Your task to perform on an android device: change keyboard looks Image 0: 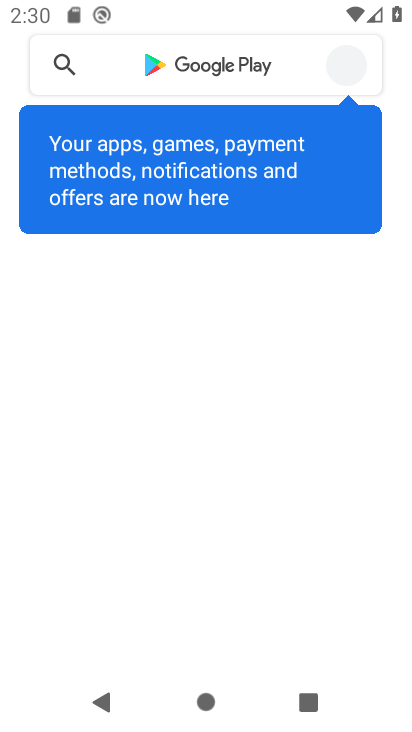
Step 0: press home button
Your task to perform on an android device: change keyboard looks Image 1: 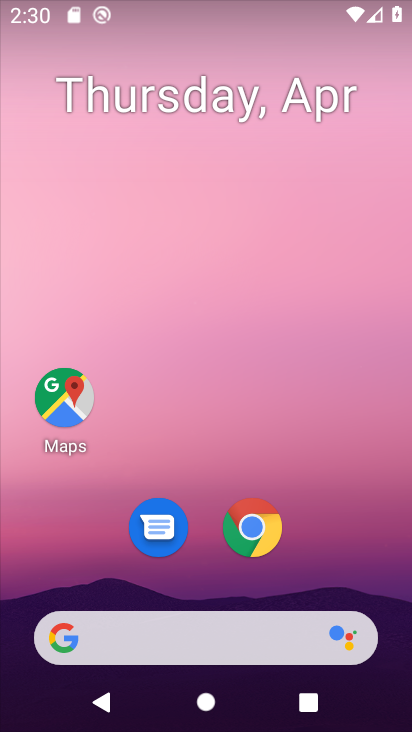
Step 1: drag from (211, 565) to (283, 12)
Your task to perform on an android device: change keyboard looks Image 2: 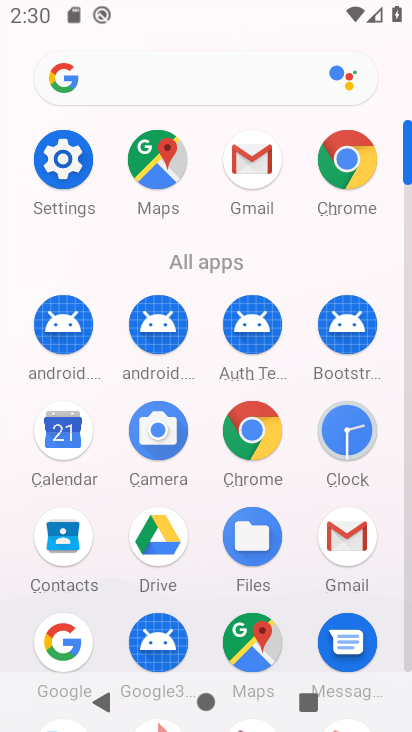
Step 2: click (60, 170)
Your task to perform on an android device: change keyboard looks Image 3: 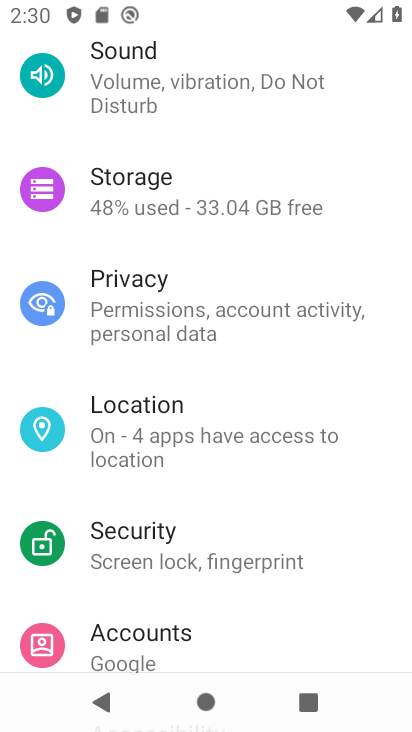
Step 3: drag from (126, 618) to (201, 75)
Your task to perform on an android device: change keyboard looks Image 4: 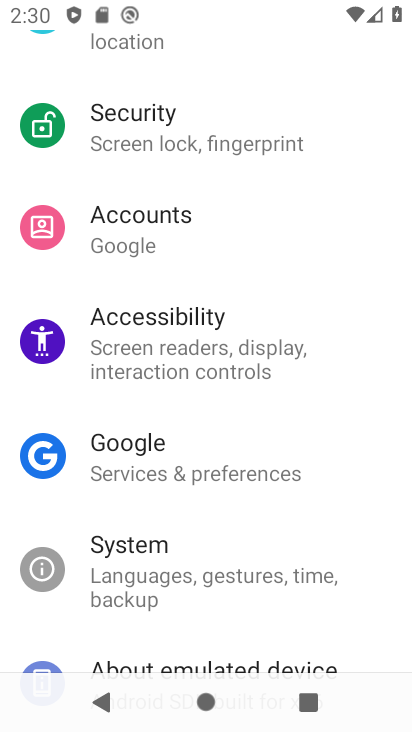
Step 4: click (159, 590)
Your task to perform on an android device: change keyboard looks Image 5: 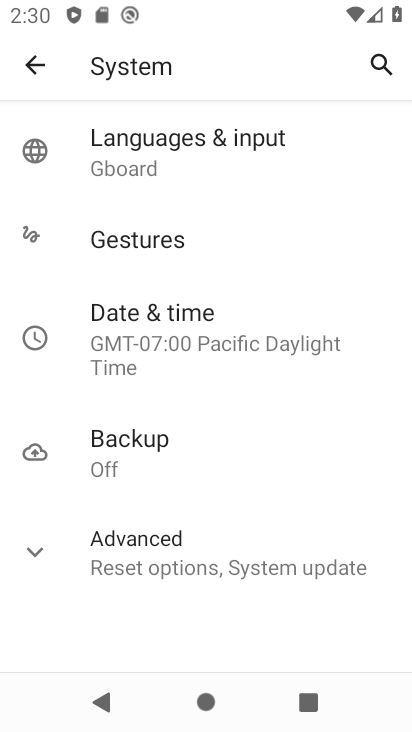
Step 5: click (137, 166)
Your task to perform on an android device: change keyboard looks Image 6: 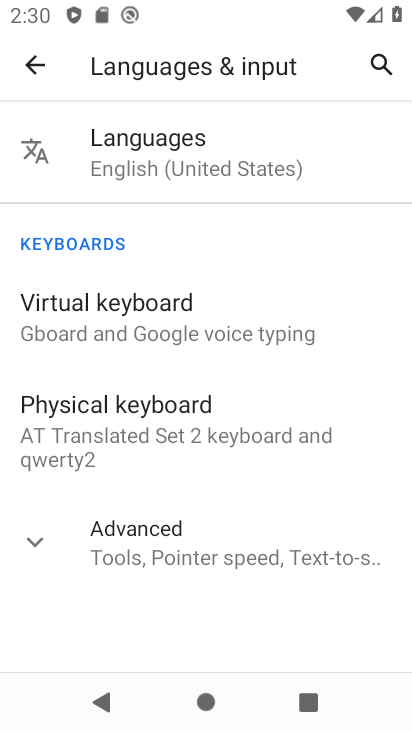
Step 6: click (134, 328)
Your task to perform on an android device: change keyboard looks Image 7: 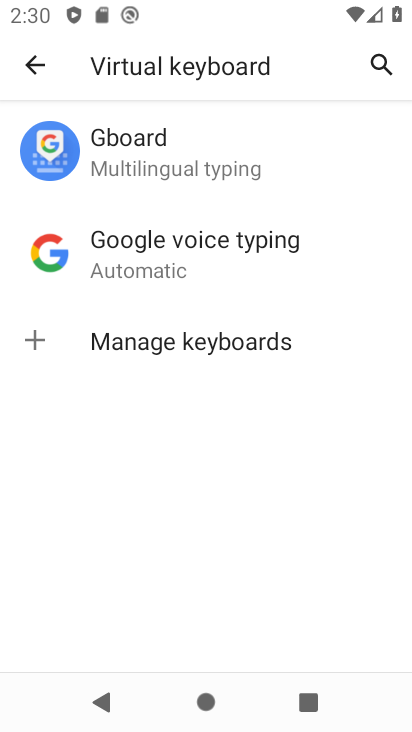
Step 7: click (166, 177)
Your task to perform on an android device: change keyboard looks Image 8: 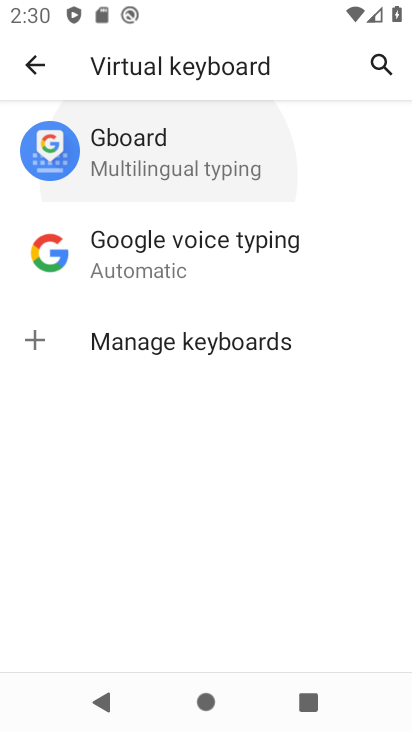
Step 8: click (166, 177)
Your task to perform on an android device: change keyboard looks Image 9: 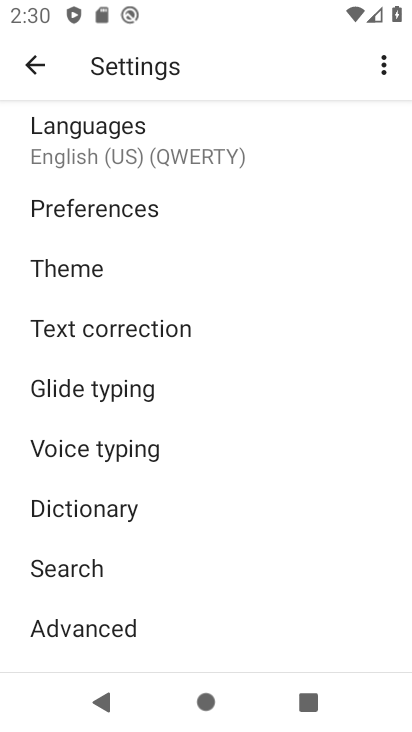
Step 9: click (65, 266)
Your task to perform on an android device: change keyboard looks Image 10: 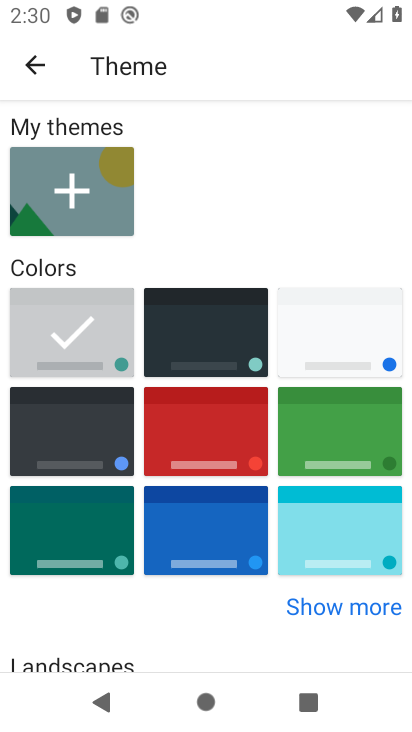
Step 10: click (193, 334)
Your task to perform on an android device: change keyboard looks Image 11: 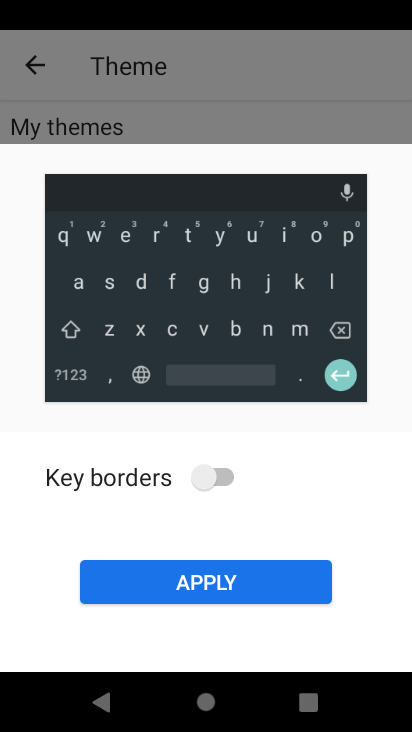
Step 11: click (232, 580)
Your task to perform on an android device: change keyboard looks Image 12: 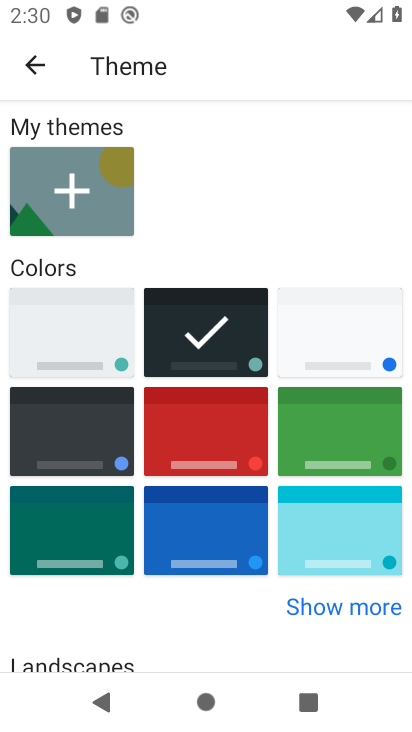
Step 12: task complete